Your task to perform on an android device: open a bookmark in the chrome app Image 0: 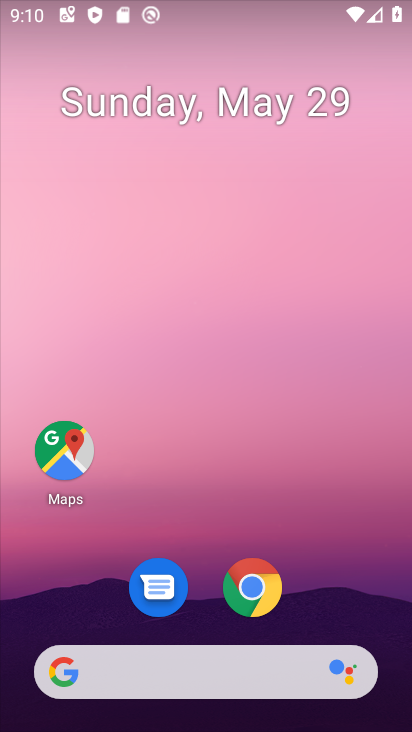
Step 0: click (249, 579)
Your task to perform on an android device: open a bookmark in the chrome app Image 1: 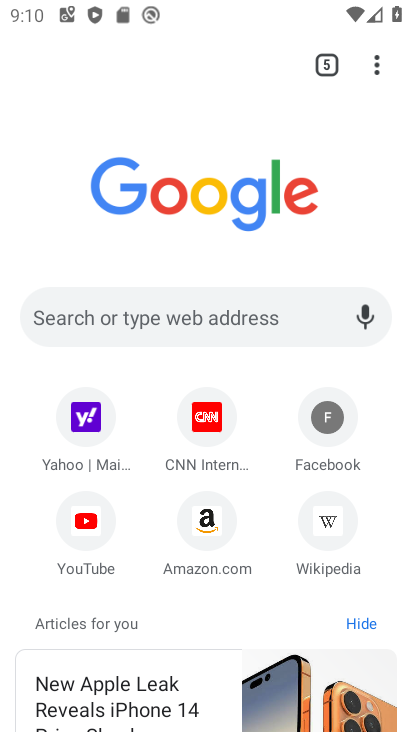
Step 1: drag from (374, 61) to (172, 245)
Your task to perform on an android device: open a bookmark in the chrome app Image 2: 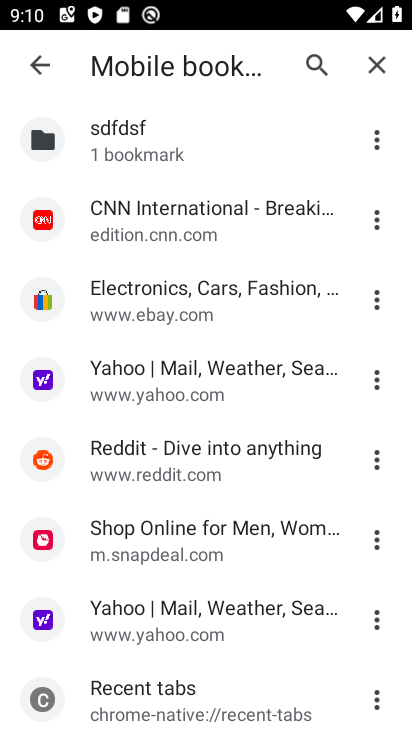
Step 2: click (152, 223)
Your task to perform on an android device: open a bookmark in the chrome app Image 3: 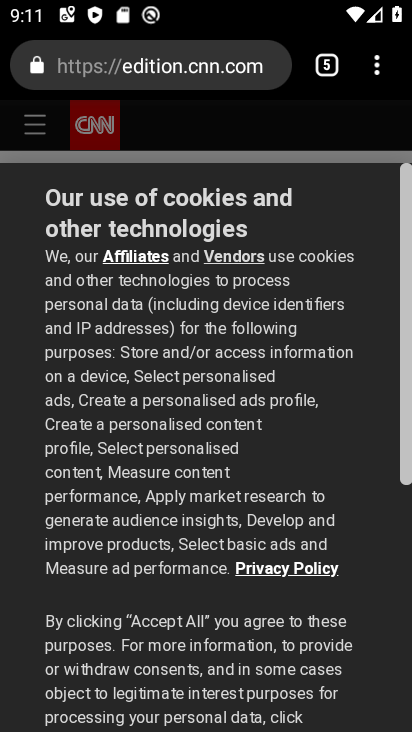
Step 3: task complete